Your task to perform on an android device: Open the web browser Image 0: 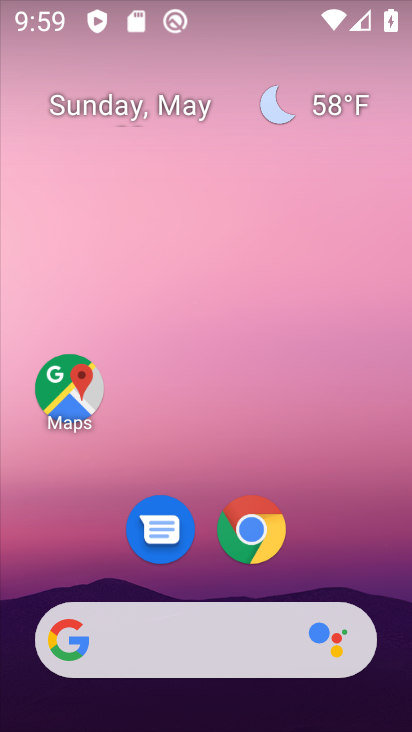
Step 0: click (239, 537)
Your task to perform on an android device: Open the web browser Image 1: 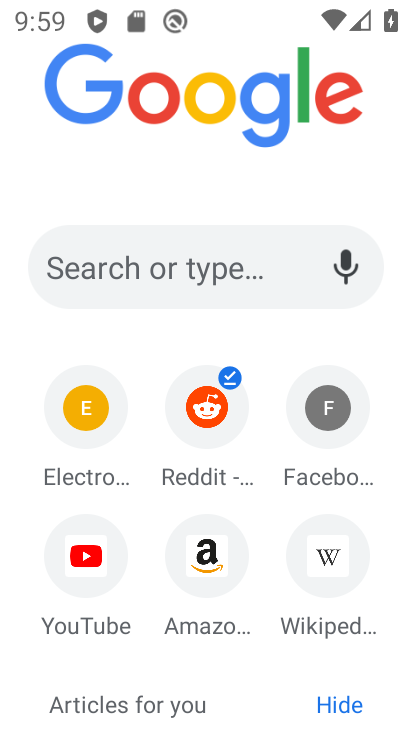
Step 1: task complete